Your task to perform on an android device: check storage Image 0: 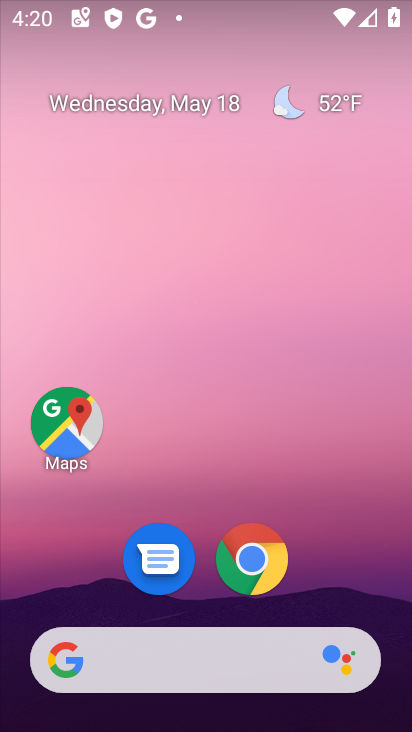
Step 0: drag from (188, 570) to (258, 96)
Your task to perform on an android device: check storage Image 1: 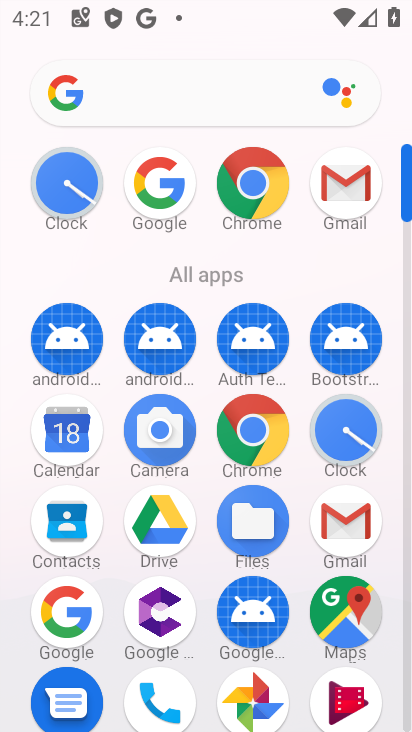
Step 1: drag from (223, 571) to (259, 184)
Your task to perform on an android device: check storage Image 2: 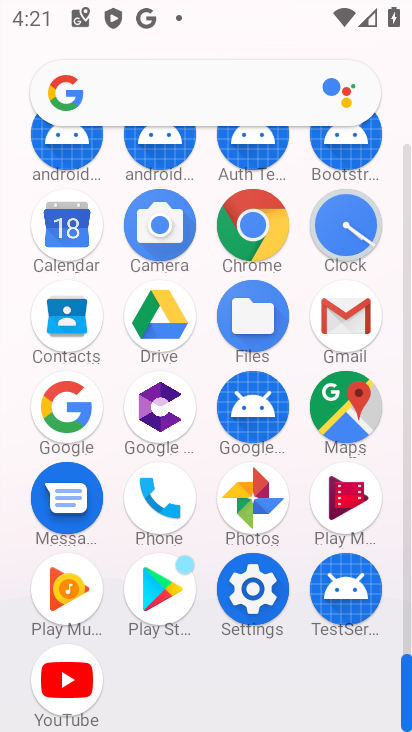
Step 2: click (243, 596)
Your task to perform on an android device: check storage Image 3: 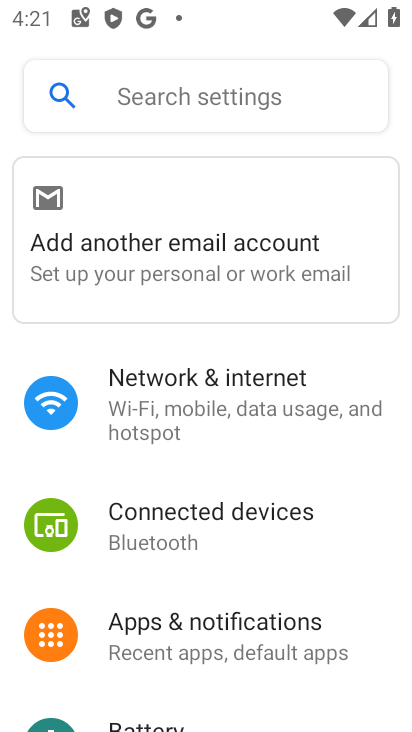
Step 3: drag from (159, 630) to (249, 206)
Your task to perform on an android device: check storage Image 4: 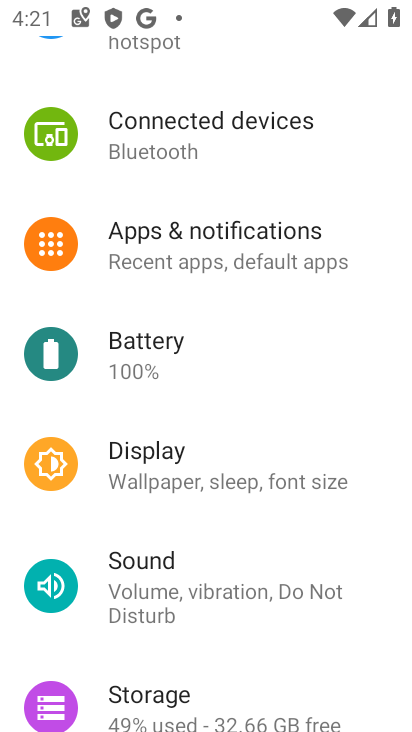
Step 4: drag from (186, 642) to (289, 242)
Your task to perform on an android device: check storage Image 5: 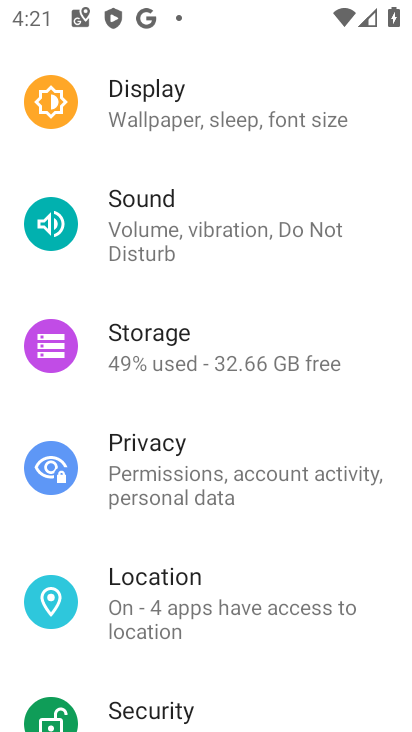
Step 5: click (173, 345)
Your task to perform on an android device: check storage Image 6: 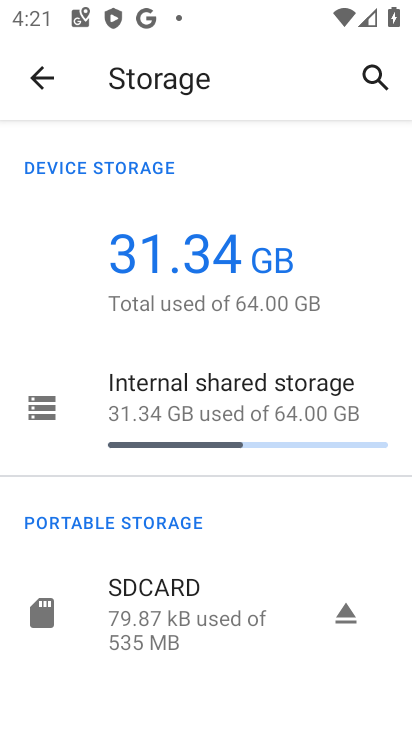
Step 6: task complete